Your task to perform on an android device: turn off smart reply in the gmail app Image 0: 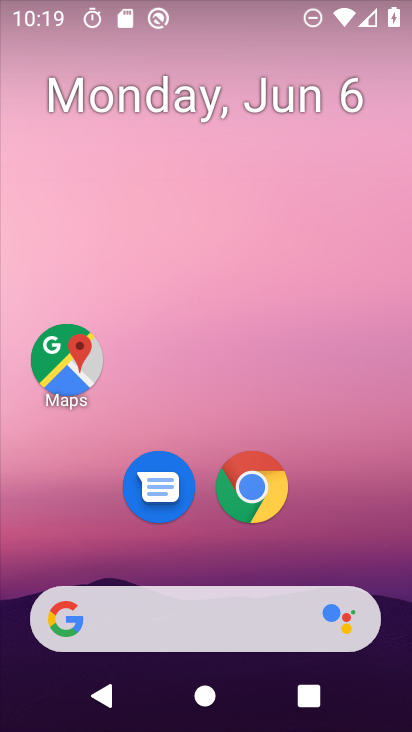
Step 0: drag from (389, 648) to (278, 45)
Your task to perform on an android device: turn off smart reply in the gmail app Image 1: 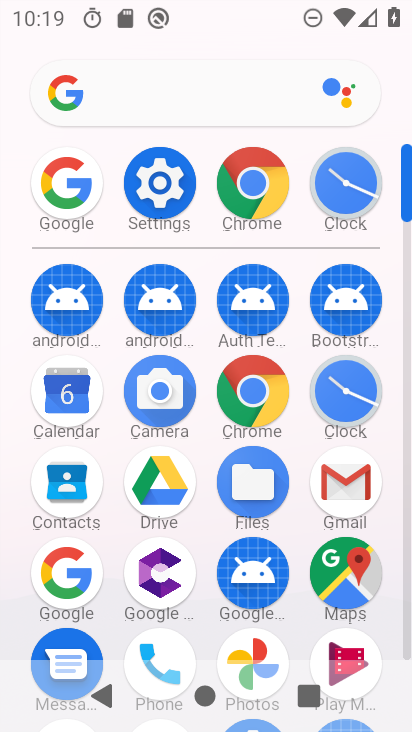
Step 1: click (340, 474)
Your task to perform on an android device: turn off smart reply in the gmail app Image 2: 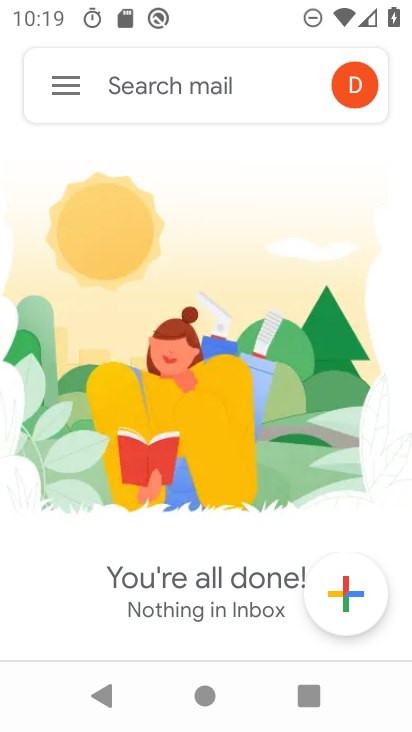
Step 2: click (73, 80)
Your task to perform on an android device: turn off smart reply in the gmail app Image 3: 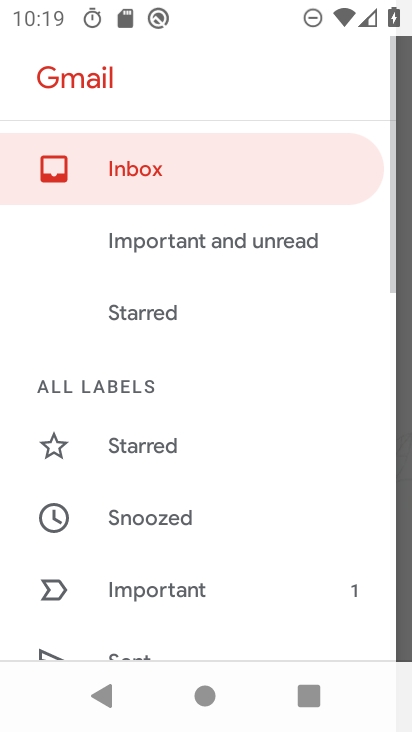
Step 3: drag from (265, 602) to (254, 207)
Your task to perform on an android device: turn off smart reply in the gmail app Image 4: 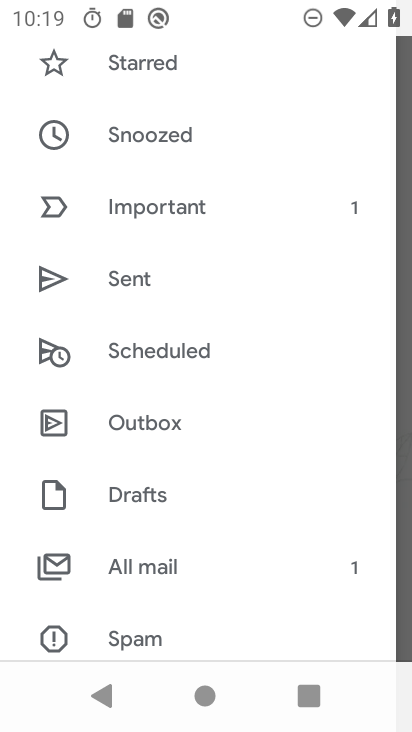
Step 4: drag from (204, 584) to (186, 292)
Your task to perform on an android device: turn off smart reply in the gmail app Image 5: 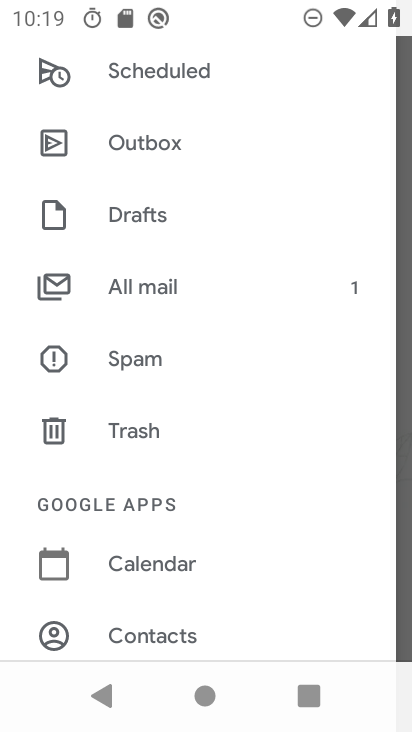
Step 5: drag from (202, 613) to (237, 188)
Your task to perform on an android device: turn off smart reply in the gmail app Image 6: 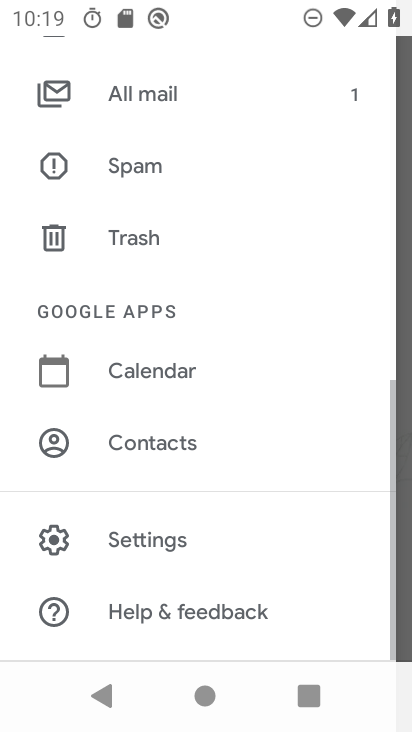
Step 6: click (238, 543)
Your task to perform on an android device: turn off smart reply in the gmail app Image 7: 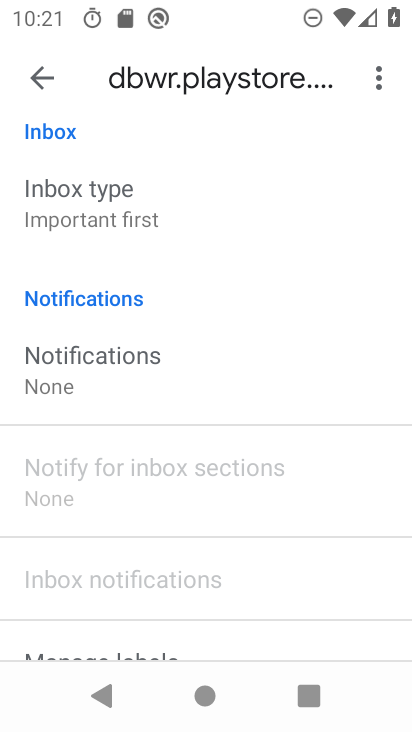
Step 7: drag from (191, 596) to (343, 72)
Your task to perform on an android device: turn off smart reply in the gmail app Image 8: 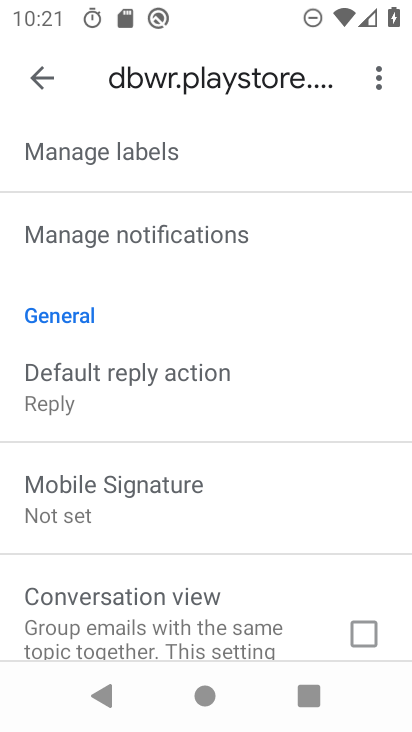
Step 8: drag from (230, 594) to (310, 380)
Your task to perform on an android device: turn off smart reply in the gmail app Image 9: 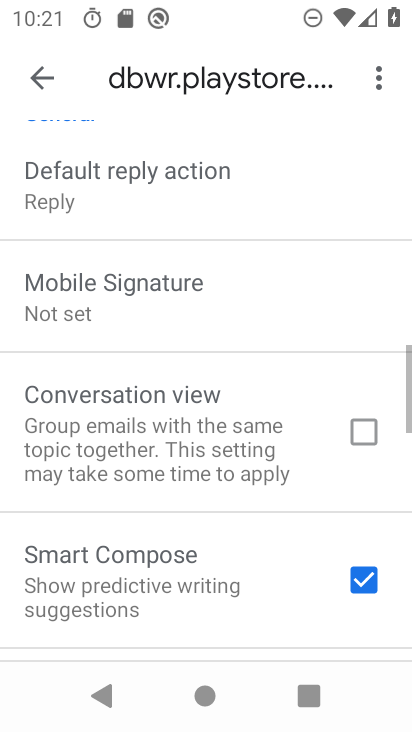
Step 9: drag from (309, 174) to (305, 132)
Your task to perform on an android device: turn off smart reply in the gmail app Image 10: 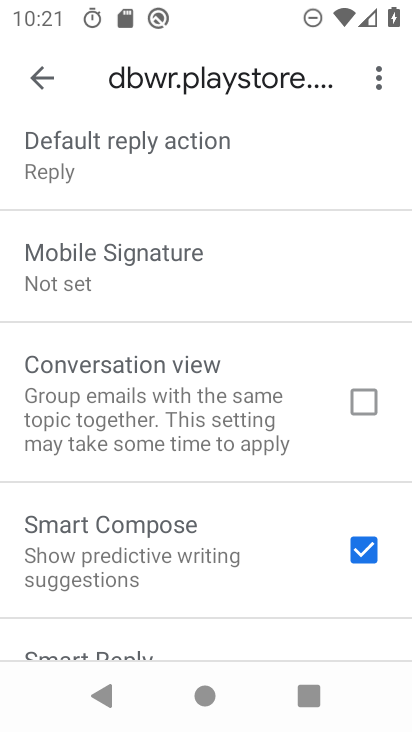
Step 10: drag from (217, 534) to (242, 261)
Your task to perform on an android device: turn off smart reply in the gmail app Image 11: 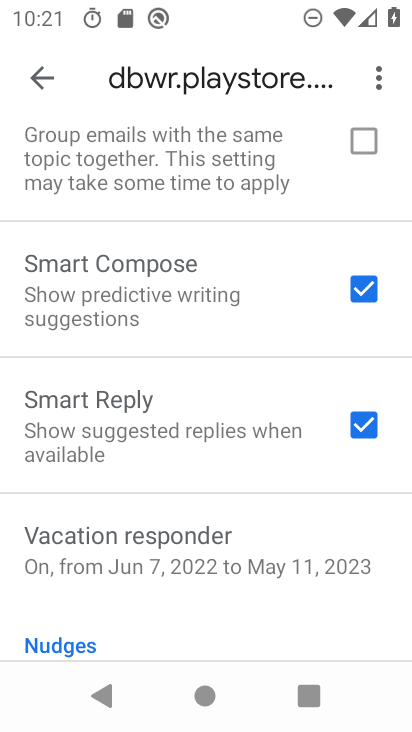
Step 11: click (184, 459)
Your task to perform on an android device: turn off smart reply in the gmail app Image 12: 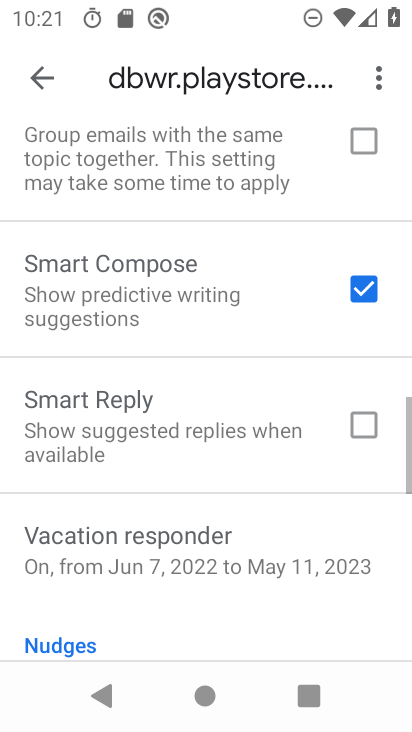
Step 12: task complete